Your task to perform on an android device: Search for razer huntsman on costco, select the first entry, and add it to the cart. Image 0: 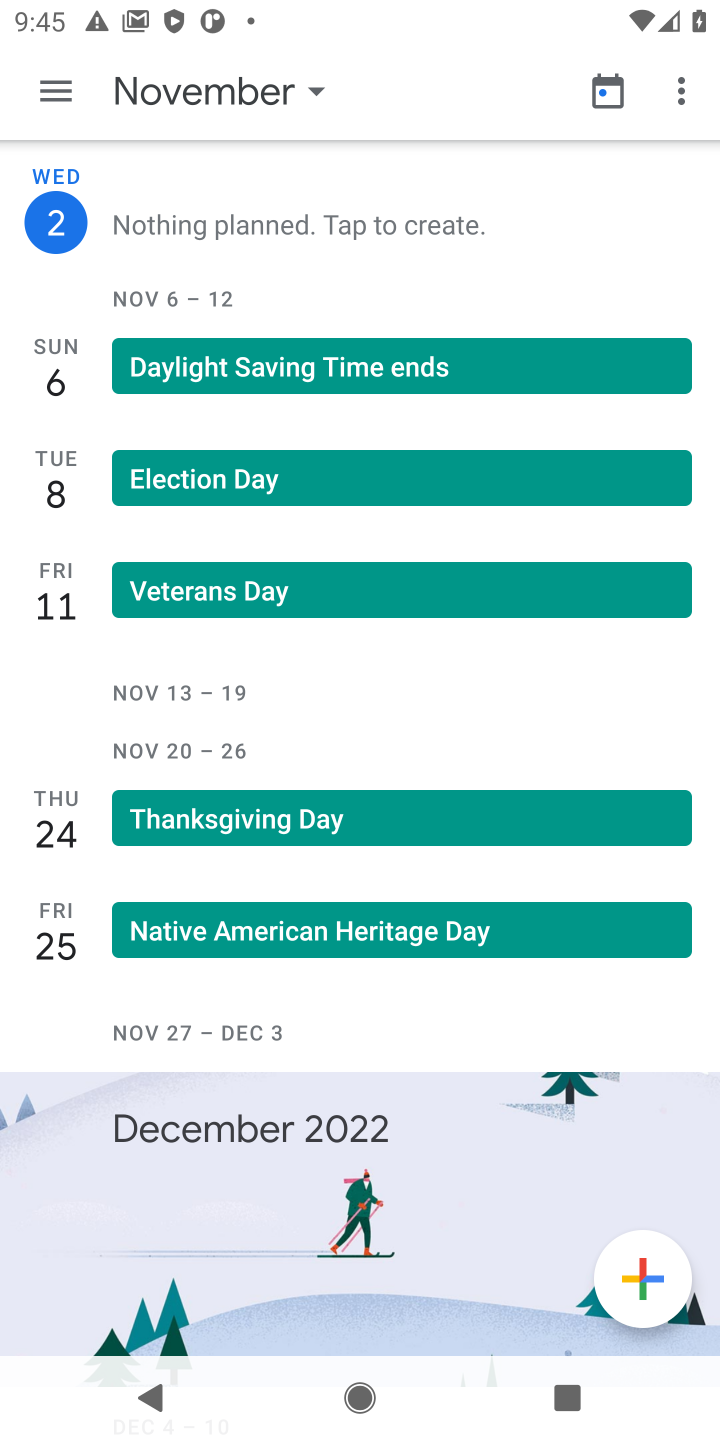
Step 0: press home button
Your task to perform on an android device: Search for razer huntsman on costco, select the first entry, and add it to the cart. Image 1: 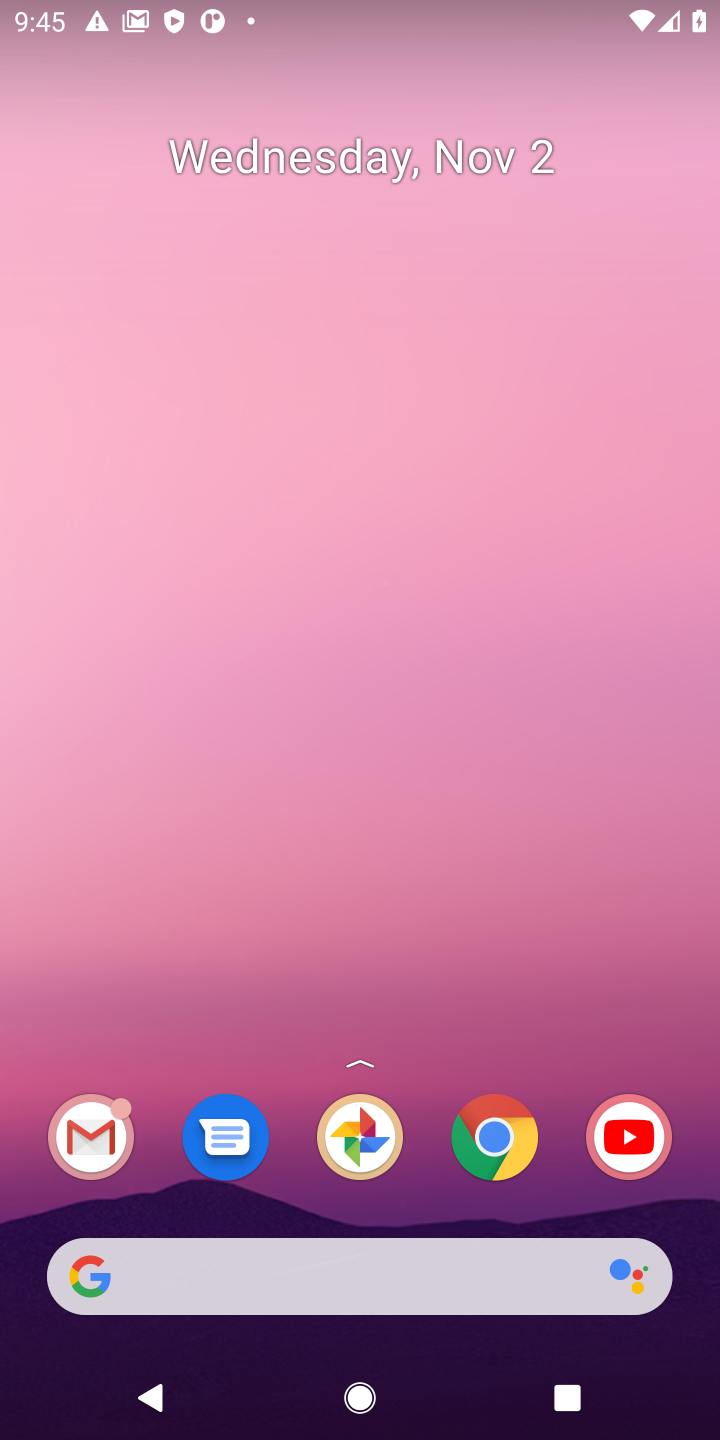
Step 1: click (500, 1140)
Your task to perform on an android device: Search for razer huntsman on costco, select the first entry, and add it to the cart. Image 2: 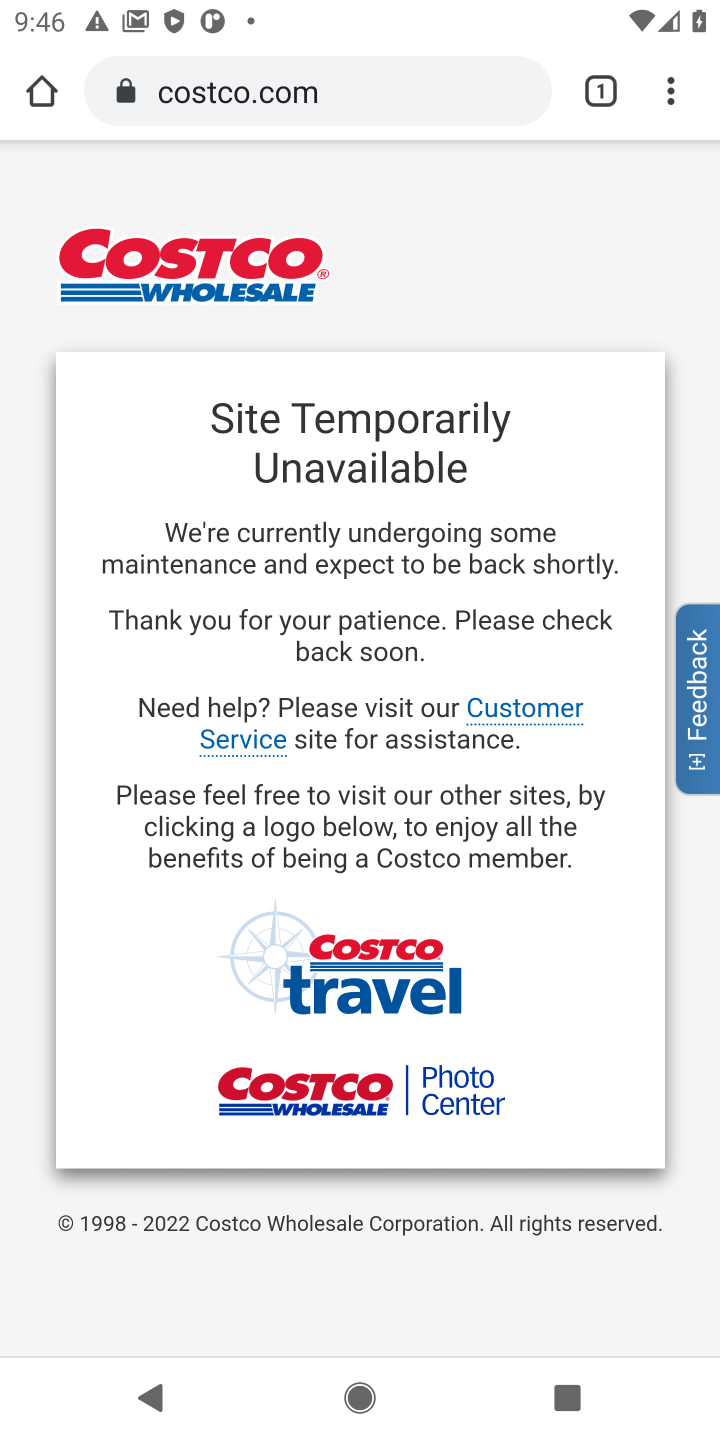
Step 2: task complete